Your task to perform on an android device: manage bookmarks in the chrome app Image 0: 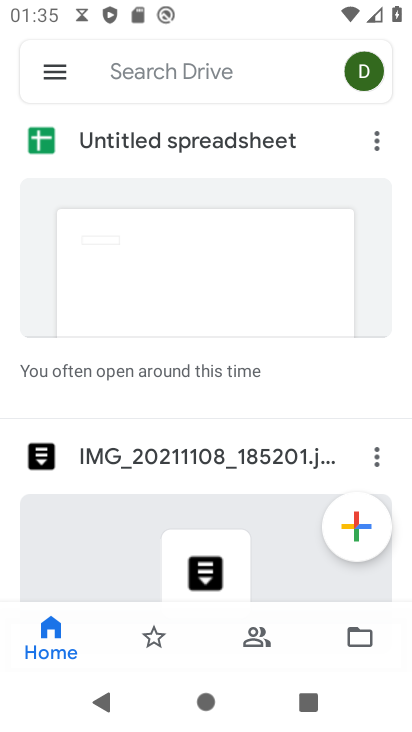
Step 0: press home button
Your task to perform on an android device: manage bookmarks in the chrome app Image 1: 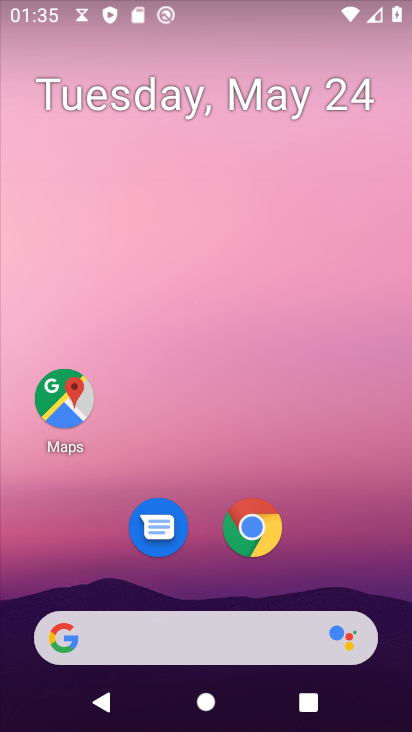
Step 1: click (249, 539)
Your task to perform on an android device: manage bookmarks in the chrome app Image 2: 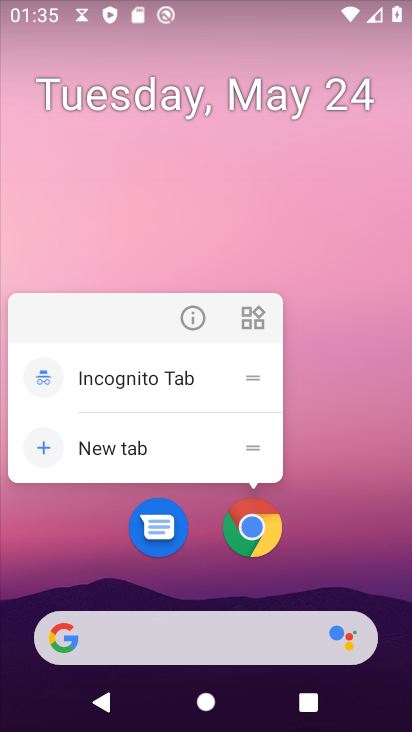
Step 2: click (260, 529)
Your task to perform on an android device: manage bookmarks in the chrome app Image 3: 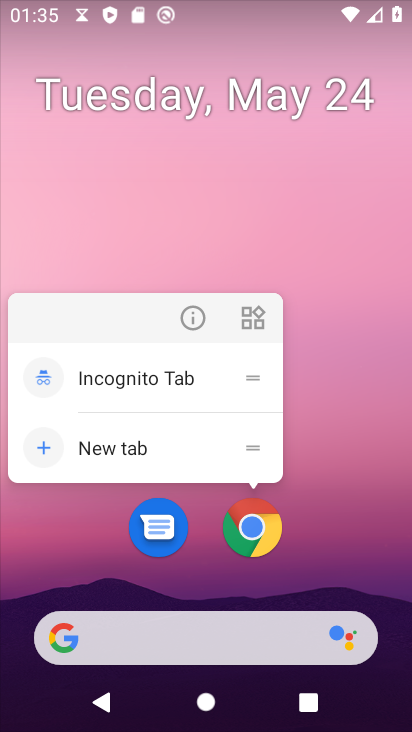
Step 3: click (258, 544)
Your task to perform on an android device: manage bookmarks in the chrome app Image 4: 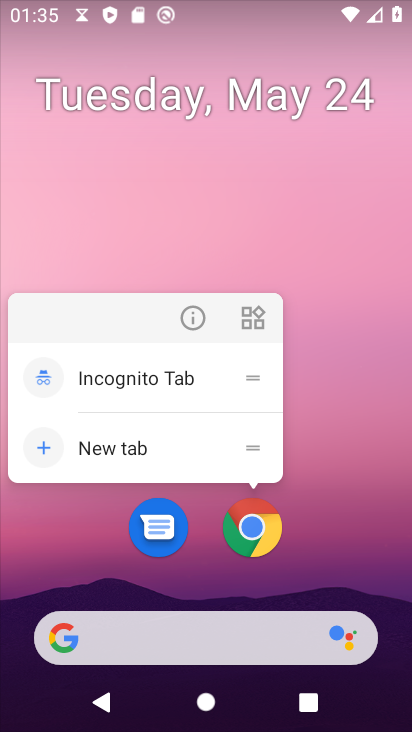
Step 4: click (263, 527)
Your task to perform on an android device: manage bookmarks in the chrome app Image 5: 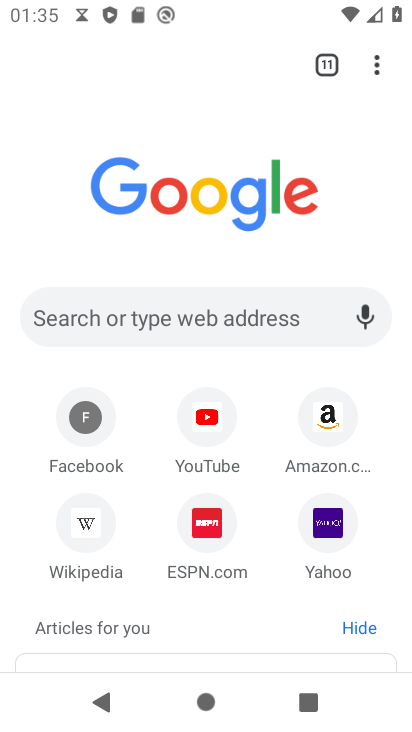
Step 5: task complete